Your task to perform on an android device: When is my next appointment? Image 0: 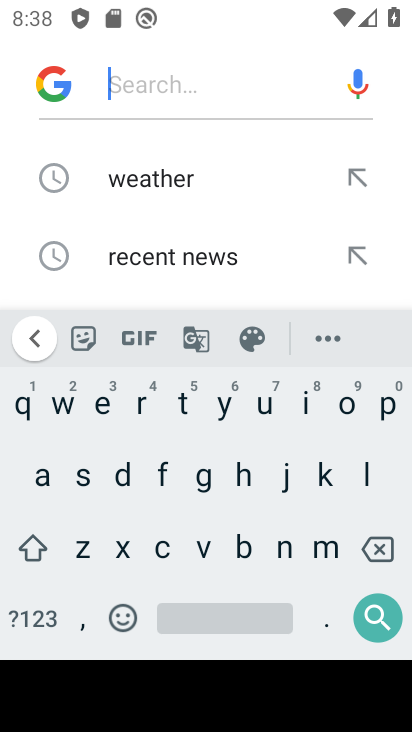
Step 0: press back button
Your task to perform on an android device: When is my next appointment? Image 1: 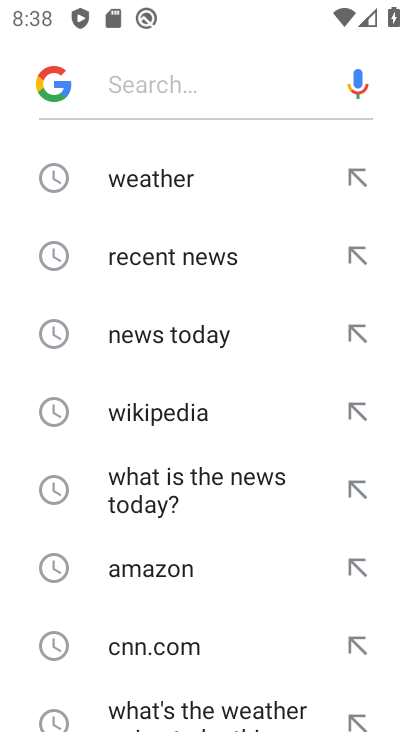
Step 1: press back button
Your task to perform on an android device: When is my next appointment? Image 2: 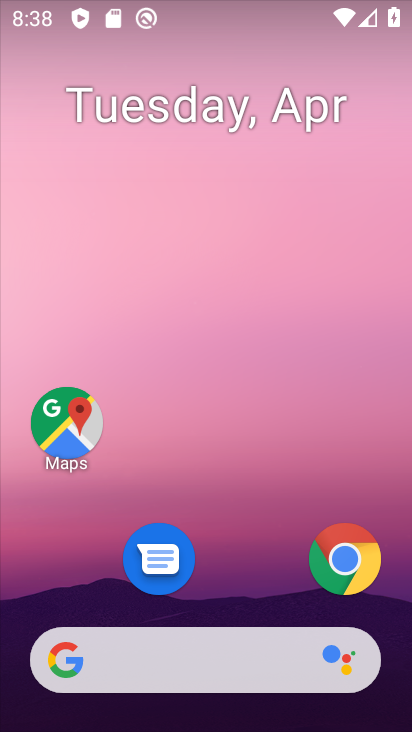
Step 2: drag from (202, 533) to (244, 224)
Your task to perform on an android device: When is my next appointment? Image 3: 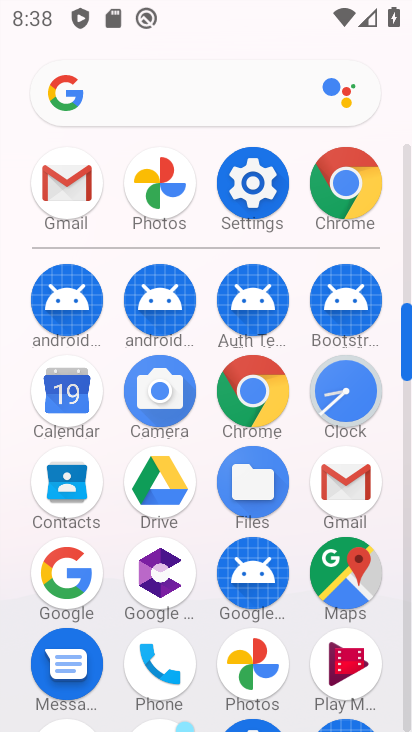
Step 3: click (71, 387)
Your task to perform on an android device: When is my next appointment? Image 4: 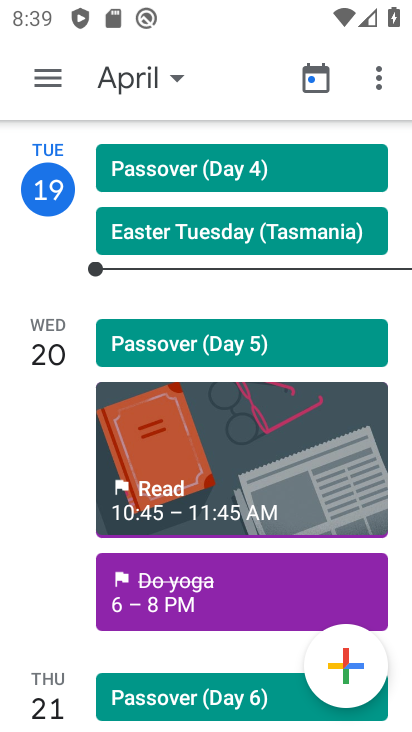
Step 4: click (54, 71)
Your task to perform on an android device: When is my next appointment? Image 5: 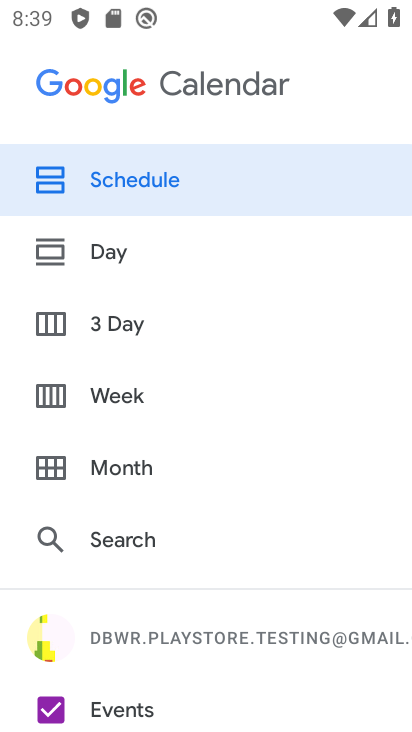
Step 5: click (129, 393)
Your task to perform on an android device: When is my next appointment? Image 6: 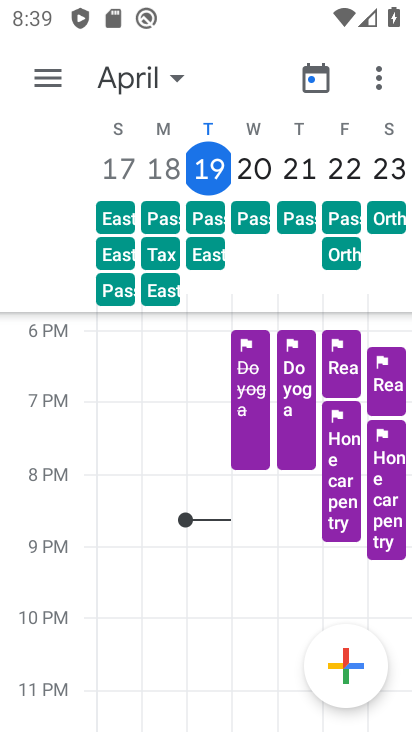
Step 6: task complete